Your task to perform on an android device: turn notification dots on Image 0: 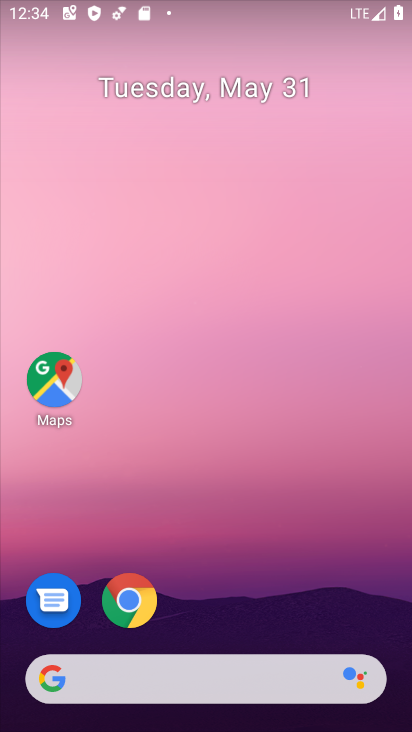
Step 0: drag from (213, 724) to (200, 151)
Your task to perform on an android device: turn notification dots on Image 1: 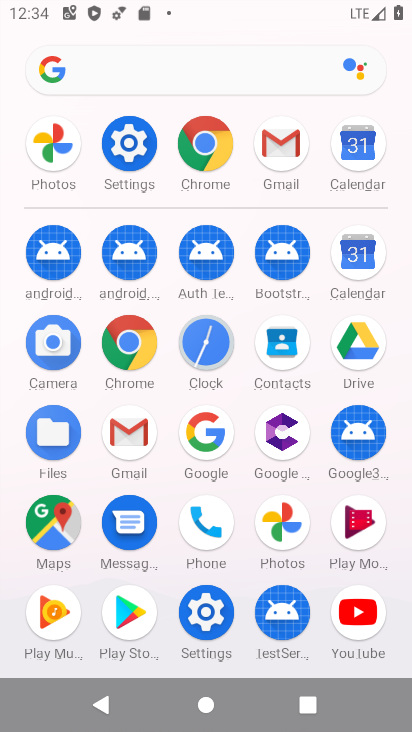
Step 1: click (129, 143)
Your task to perform on an android device: turn notification dots on Image 2: 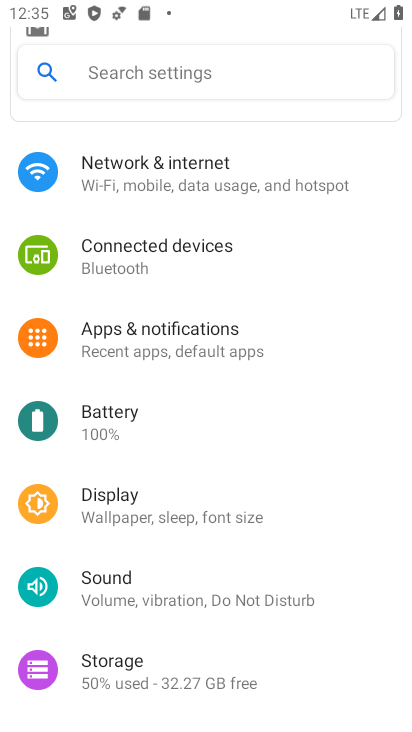
Step 2: click (162, 339)
Your task to perform on an android device: turn notification dots on Image 3: 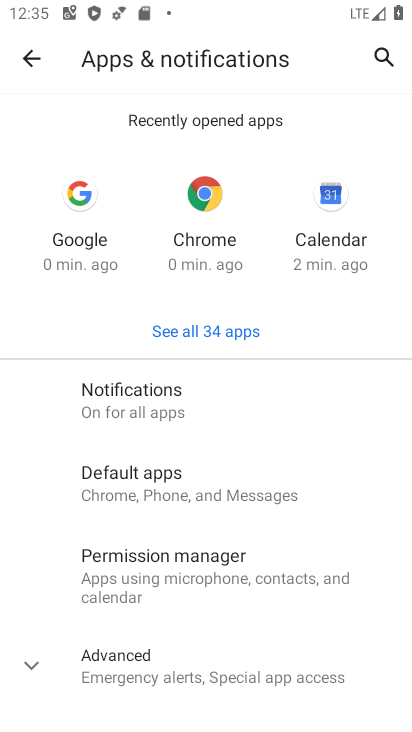
Step 3: click (141, 400)
Your task to perform on an android device: turn notification dots on Image 4: 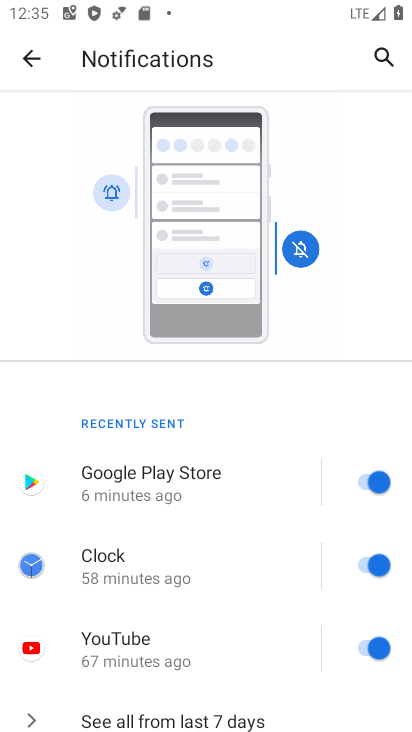
Step 4: drag from (290, 715) to (281, 259)
Your task to perform on an android device: turn notification dots on Image 5: 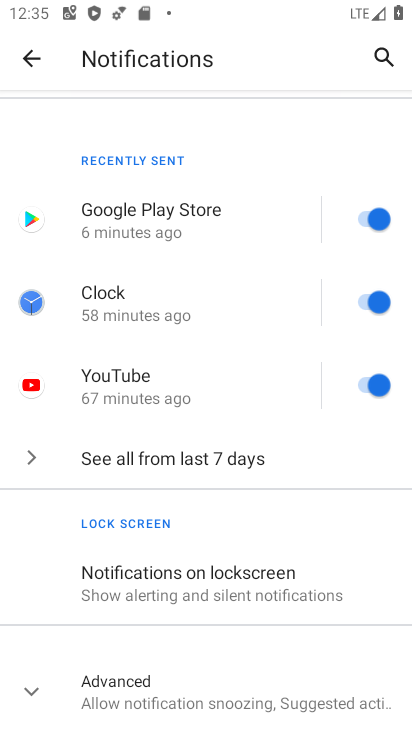
Step 5: click (144, 690)
Your task to perform on an android device: turn notification dots on Image 6: 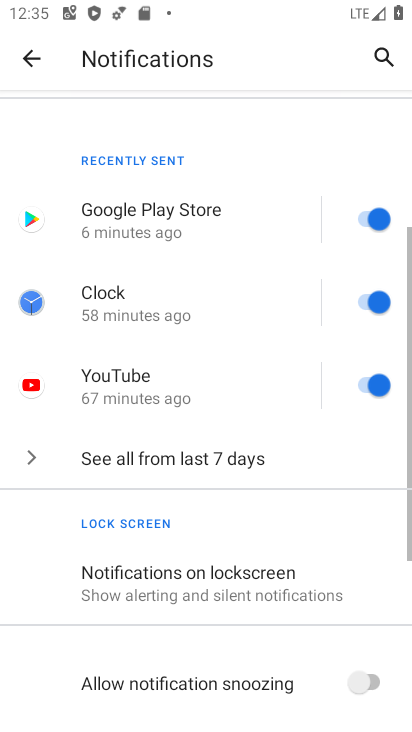
Step 6: click (282, 698)
Your task to perform on an android device: turn notification dots on Image 7: 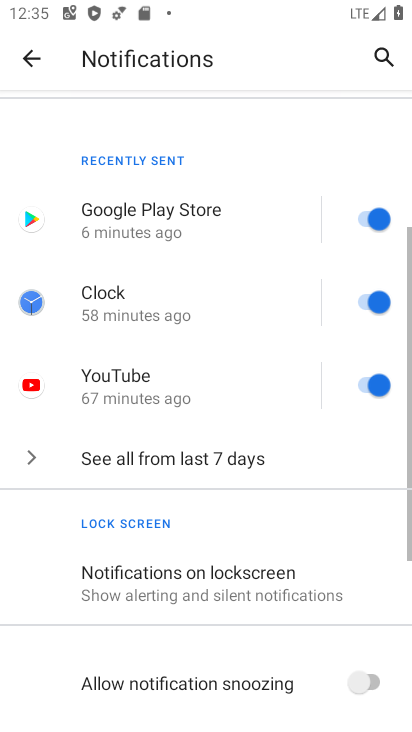
Step 7: drag from (280, 608) to (276, 347)
Your task to perform on an android device: turn notification dots on Image 8: 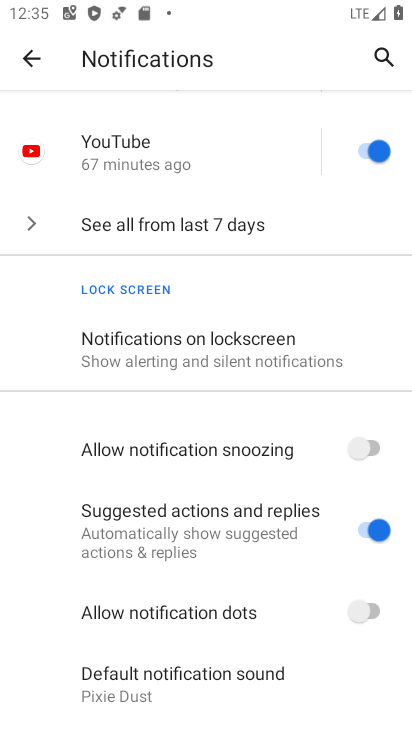
Step 8: click (377, 610)
Your task to perform on an android device: turn notification dots on Image 9: 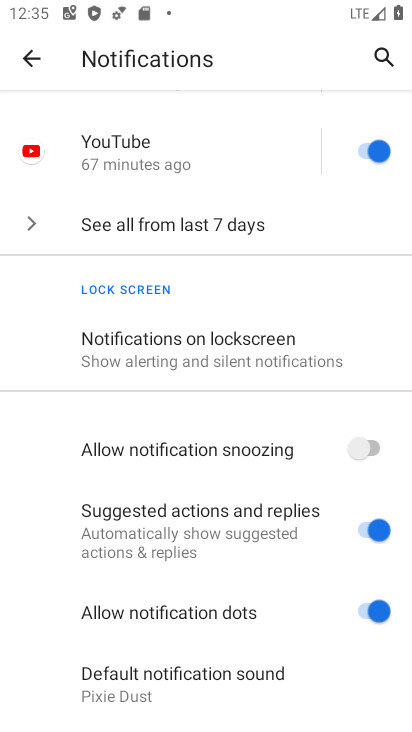
Step 9: task complete